Your task to perform on an android device: clear all cookies in the chrome app Image 0: 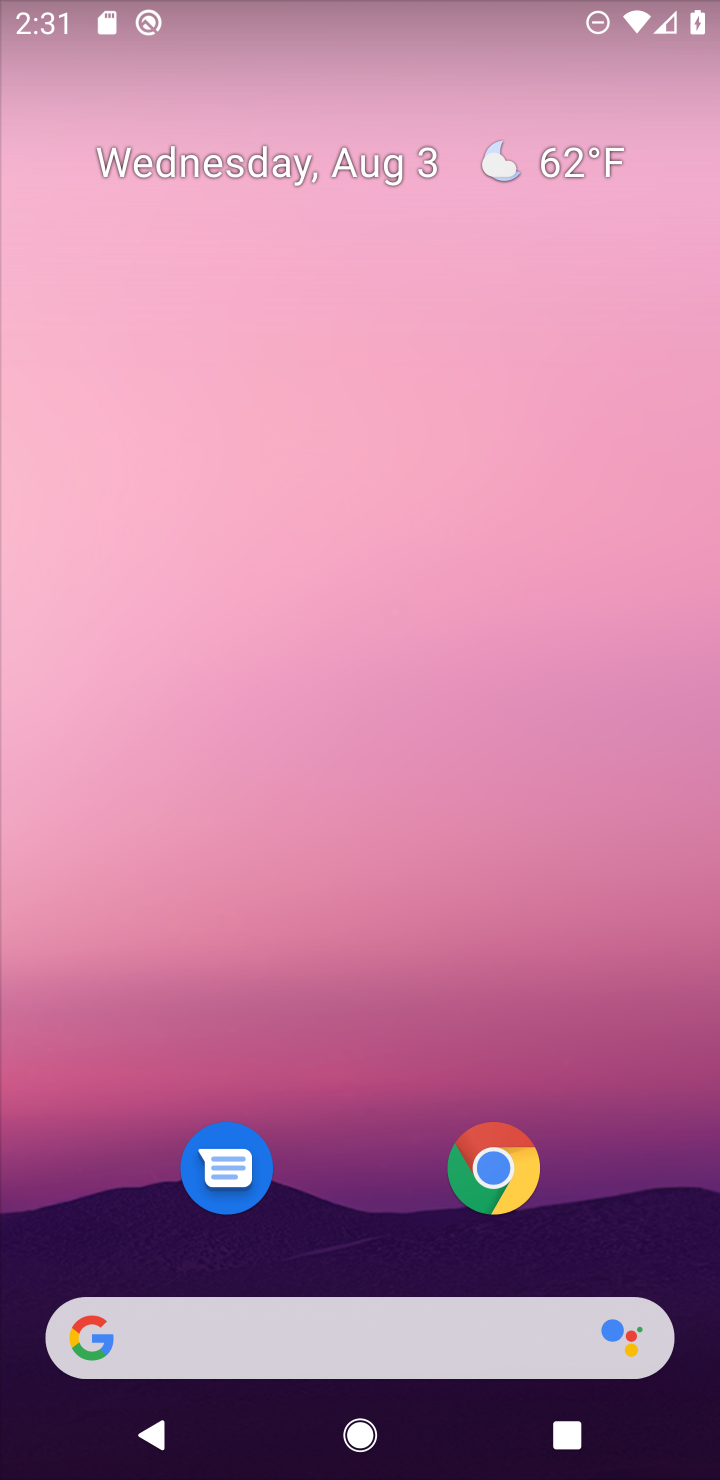
Step 0: click (492, 1168)
Your task to perform on an android device: clear all cookies in the chrome app Image 1: 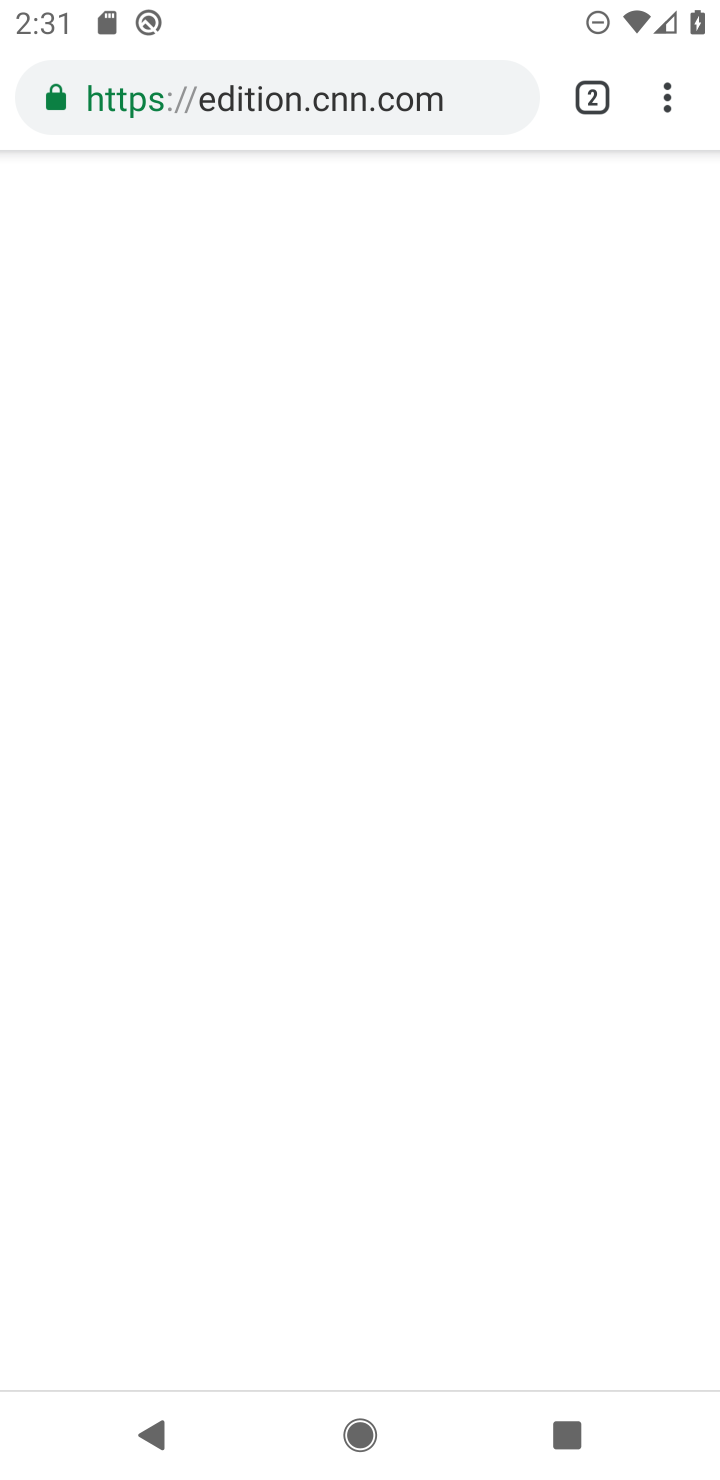
Step 1: click (659, 112)
Your task to perform on an android device: clear all cookies in the chrome app Image 2: 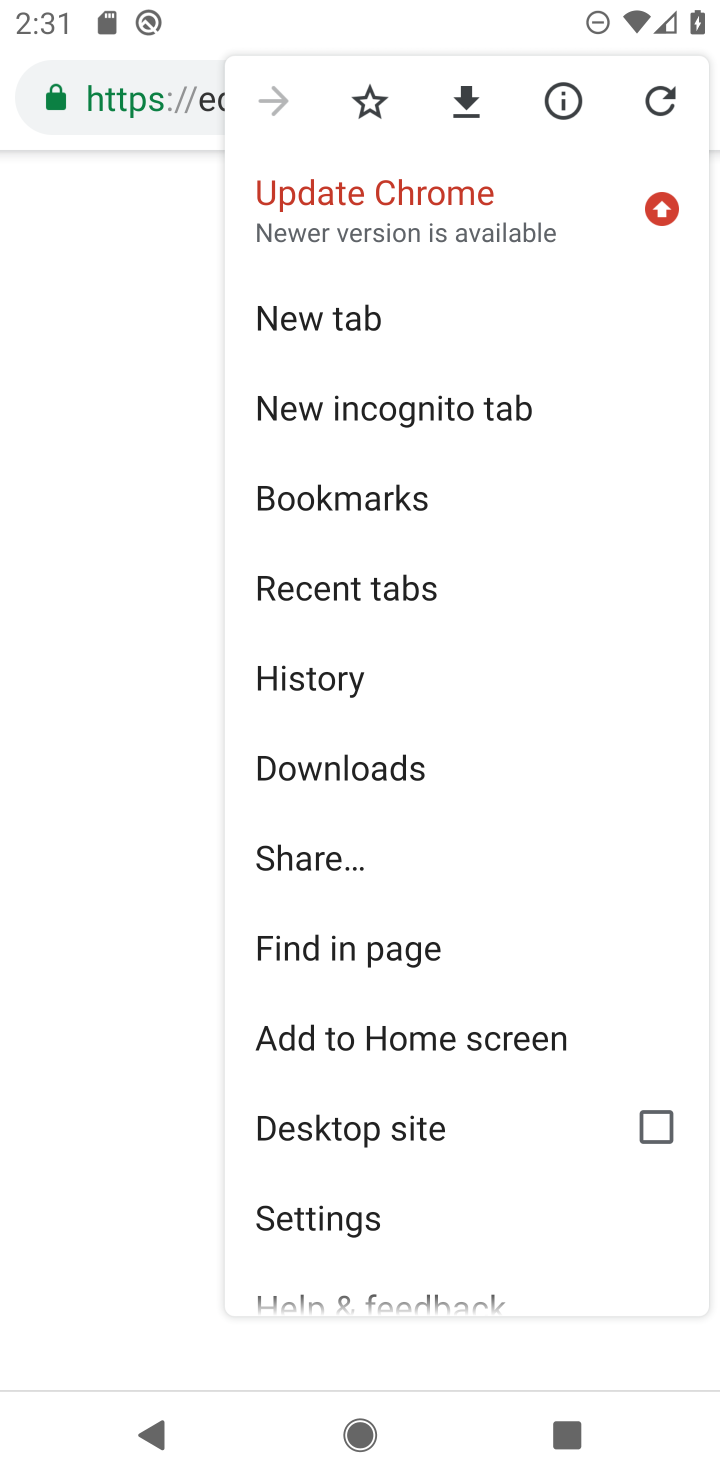
Step 2: click (307, 668)
Your task to perform on an android device: clear all cookies in the chrome app Image 3: 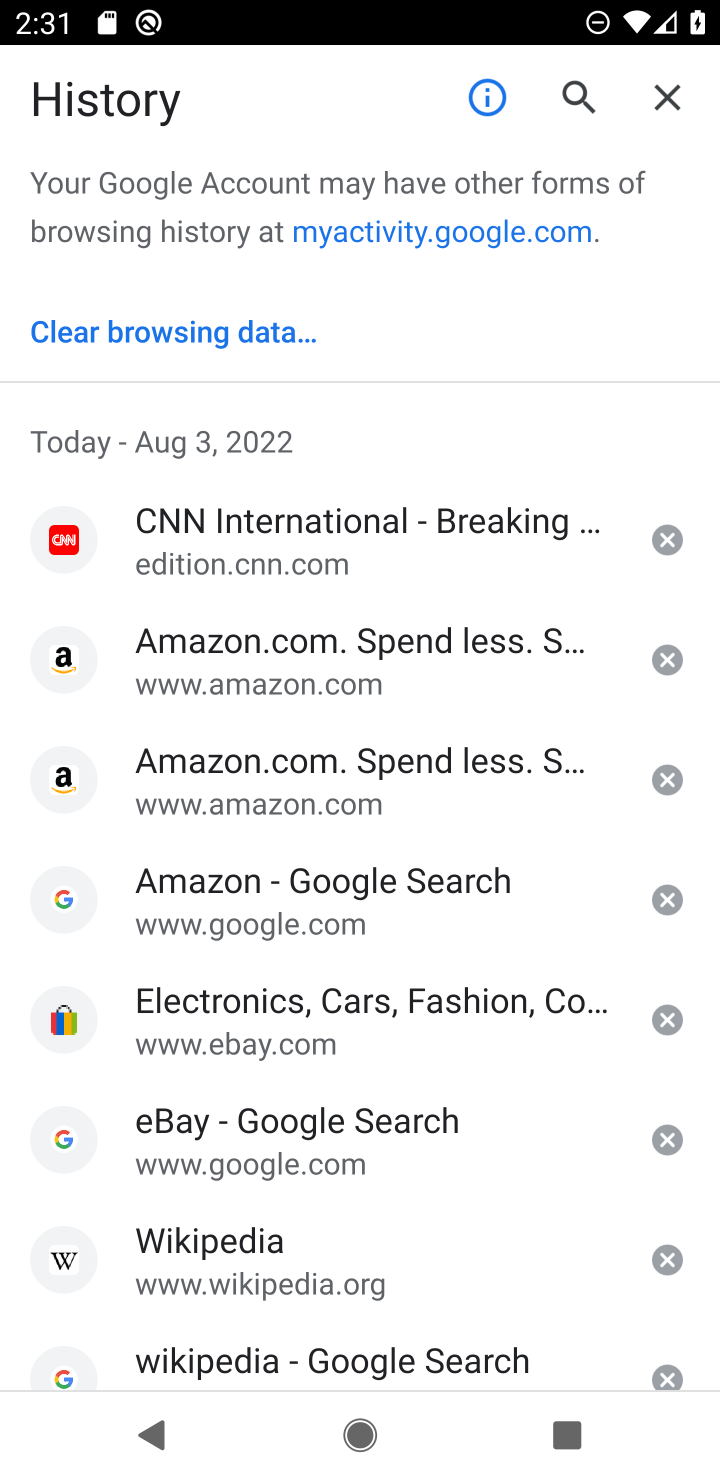
Step 3: click (171, 335)
Your task to perform on an android device: clear all cookies in the chrome app Image 4: 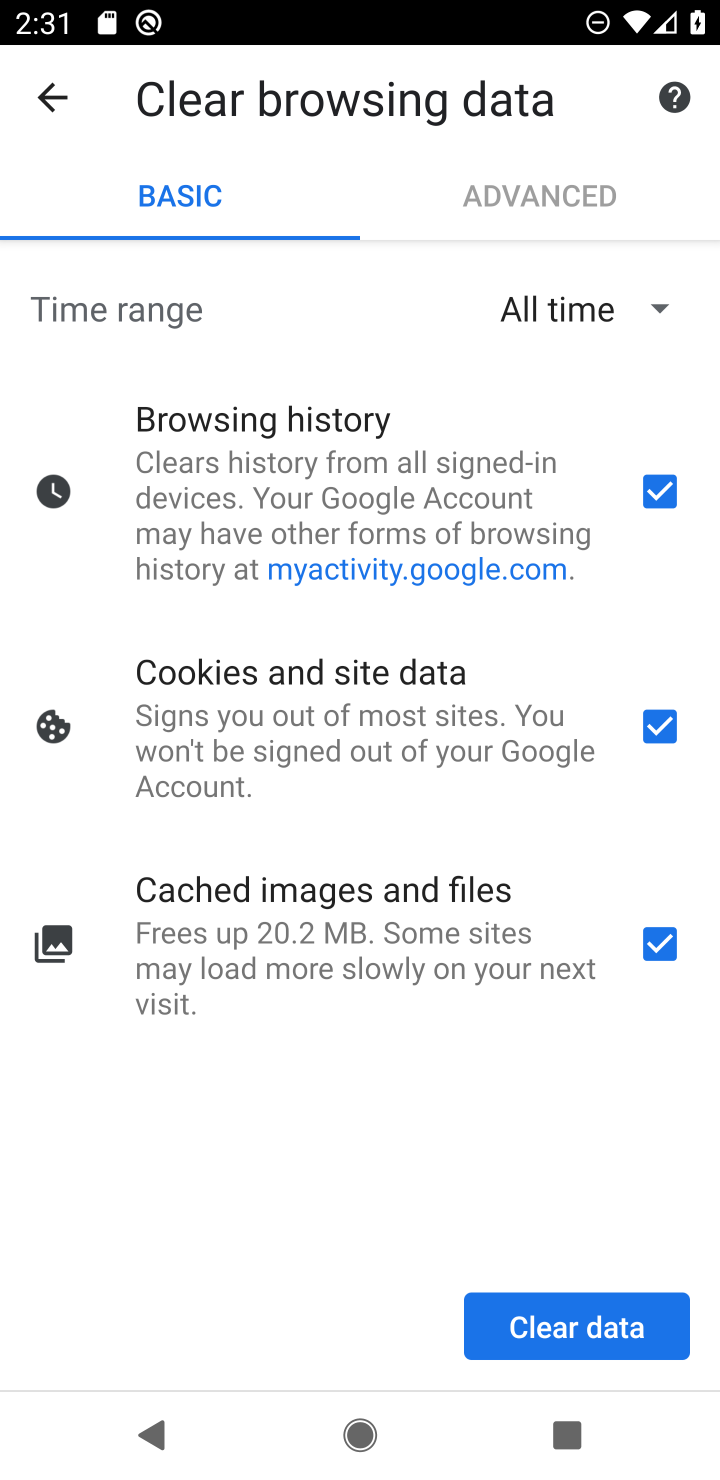
Step 4: click (652, 495)
Your task to perform on an android device: clear all cookies in the chrome app Image 5: 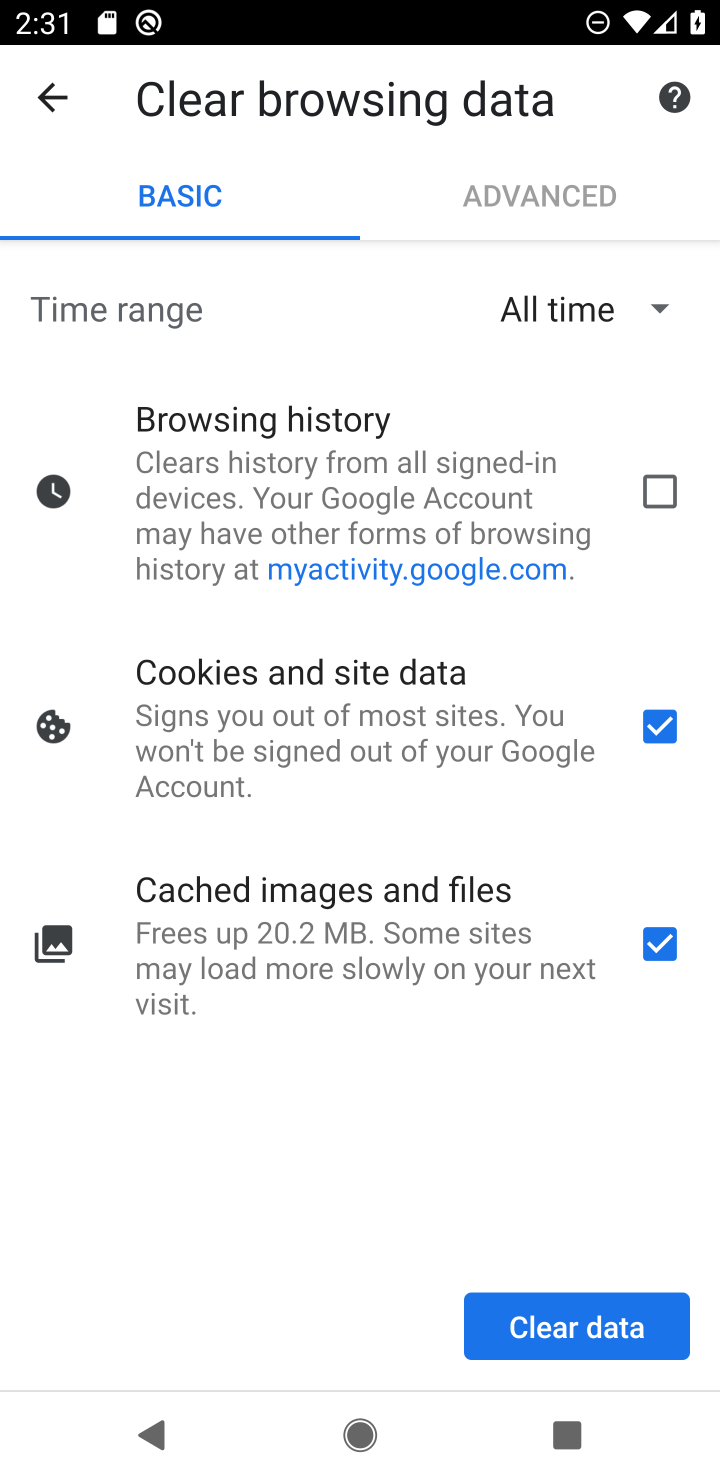
Step 5: click (668, 946)
Your task to perform on an android device: clear all cookies in the chrome app Image 6: 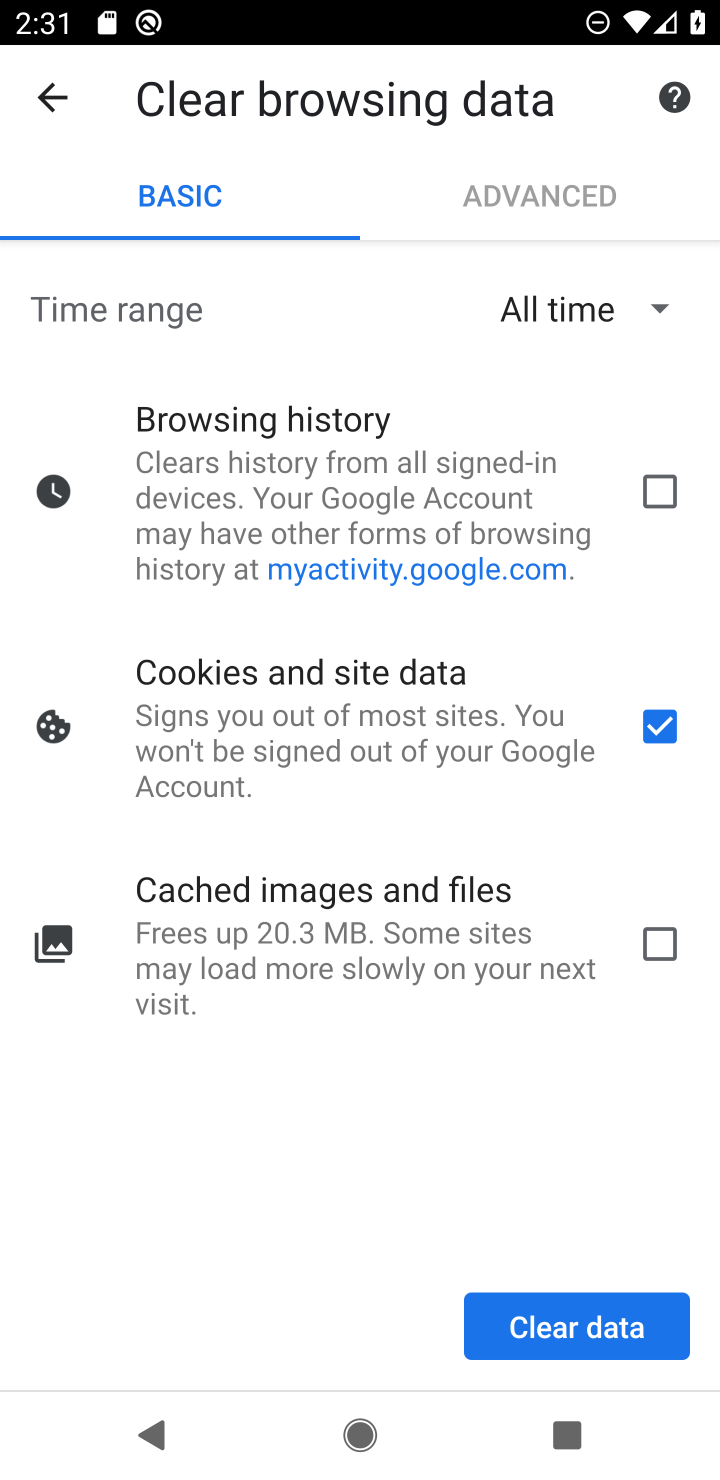
Step 6: click (575, 1319)
Your task to perform on an android device: clear all cookies in the chrome app Image 7: 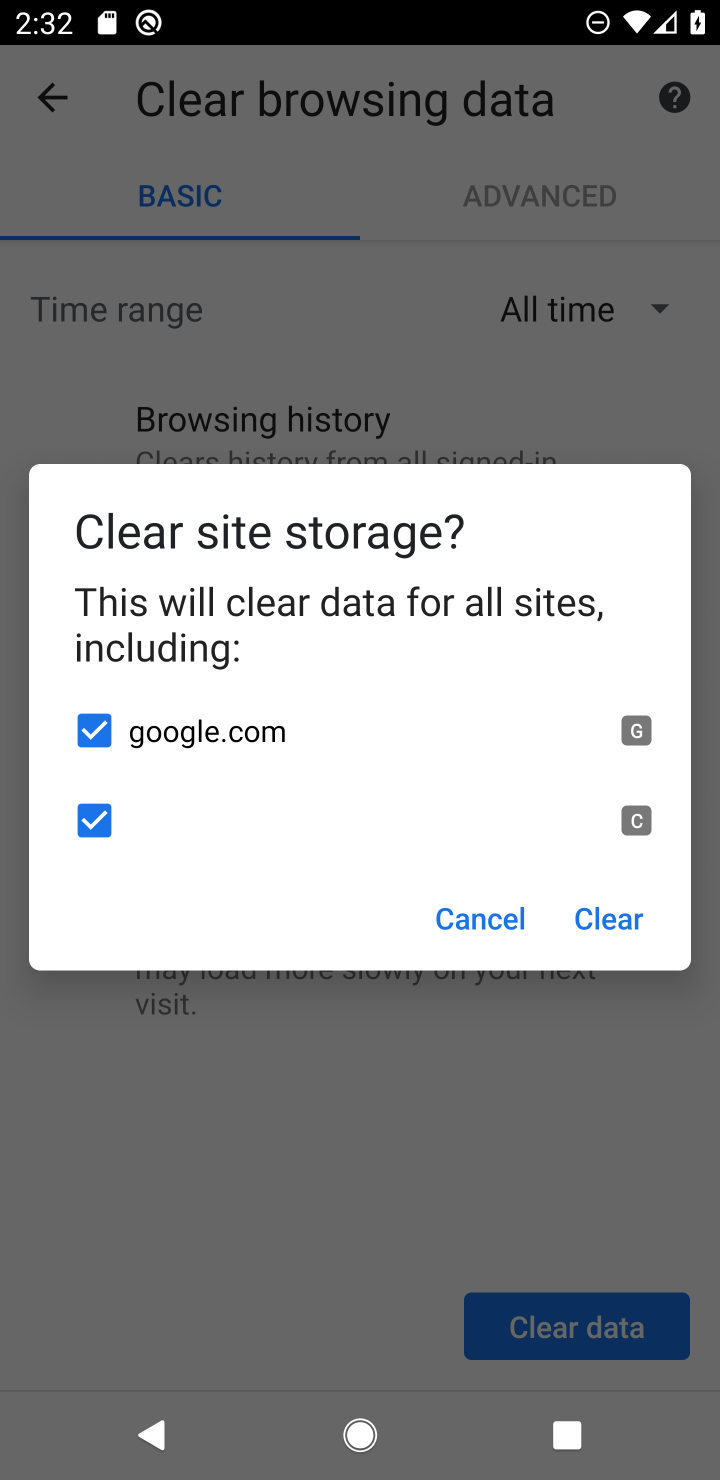
Step 7: click (608, 915)
Your task to perform on an android device: clear all cookies in the chrome app Image 8: 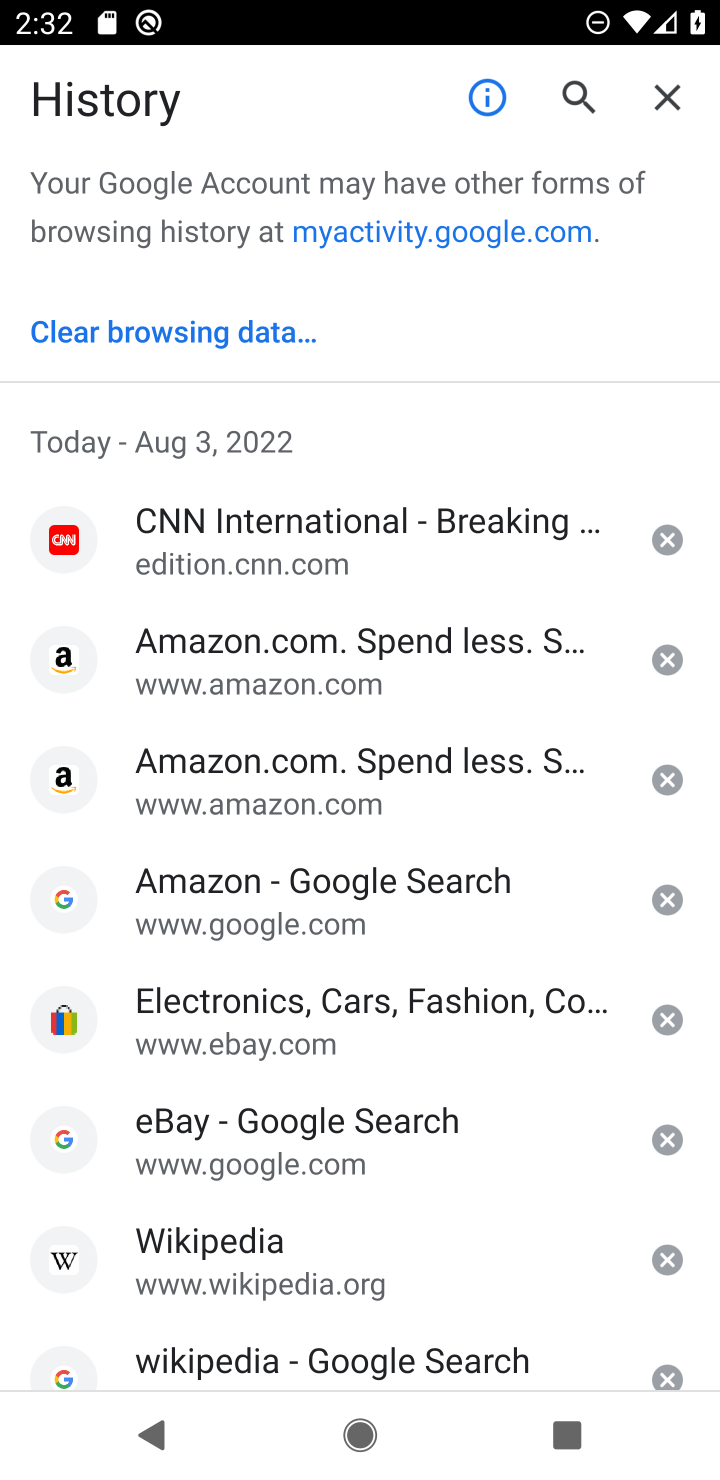
Step 8: task complete